Your task to perform on an android device: uninstall "Nova Launcher" Image 0: 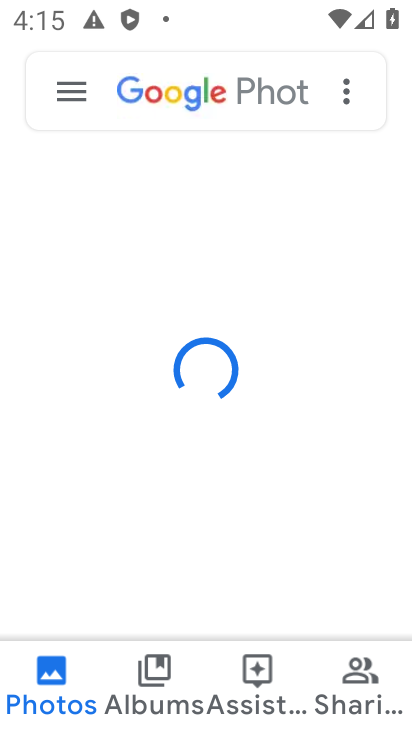
Step 0: press home button
Your task to perform on an android device: uninstall "Nova Launcher" Image 1: 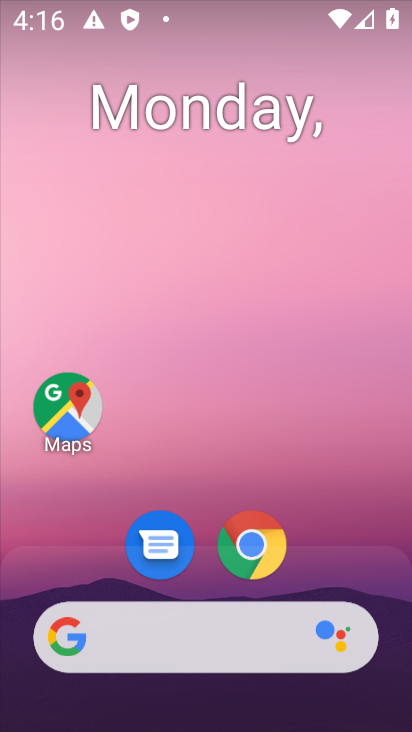
Step 1: drag from (393, 537) to (313, 1)
Your task to perform on an android device: uninstall "Nova Launcher" Image 2: 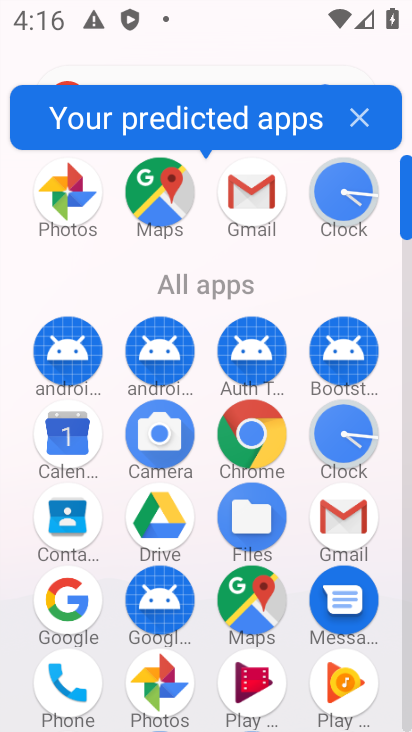
Step 2: drag from (110, 630) to (76, 358)
Your task to perform on an android device: uninstall "Nova Launcher" Image 3: 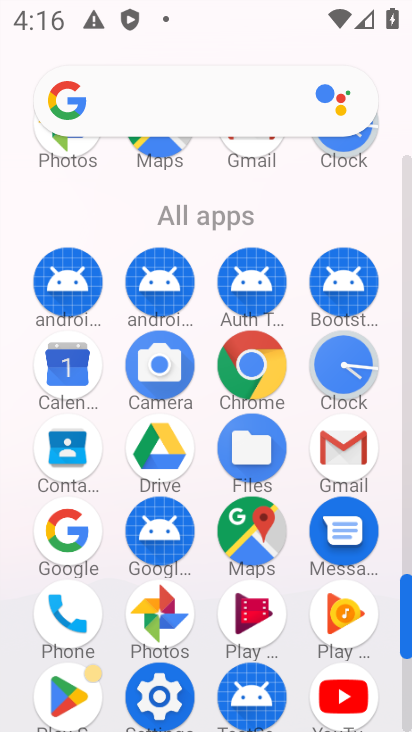
Step 3: click (61, 705)
Your task to perform on an android device: uninstall "Nova Launcher" Image 4: 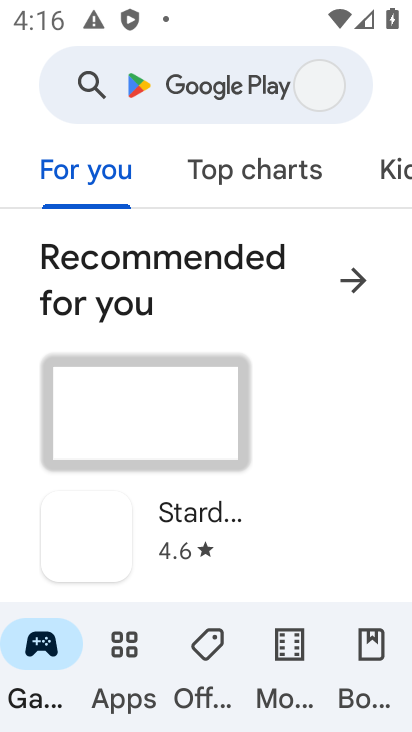
Step 4: click (276, 77)
Your task to perform on an android device: uninstall "Nova Launcher" Image 5: 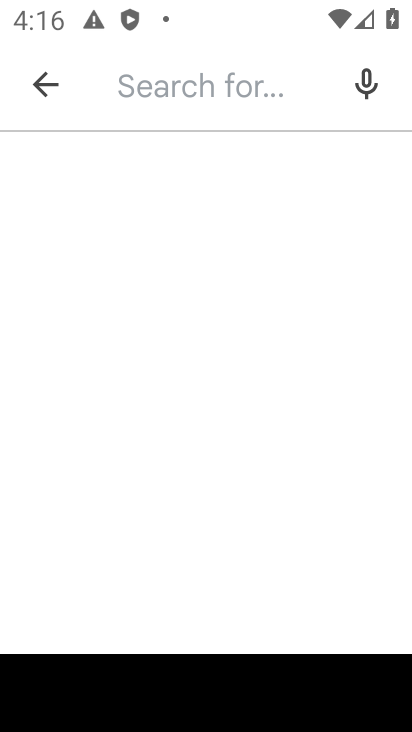
Step 5: type "nova launcher"
Your task to perform on an android device: uninstall "Nova Launcher" Image 6: 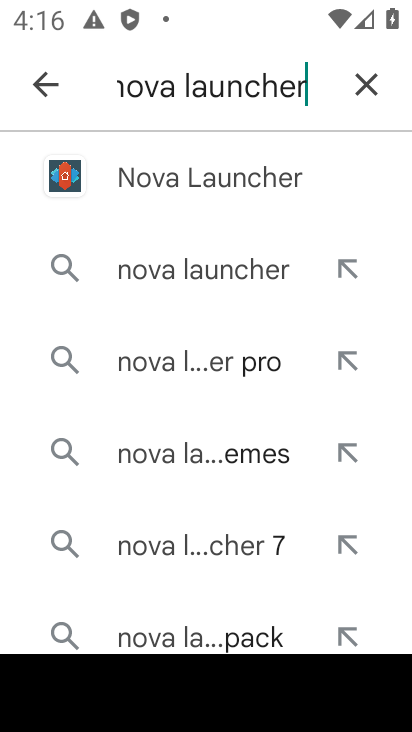
Step 6: click (161, 166)
Your task to perform on an android device: uninstall "Nova Launcher" Image 7: 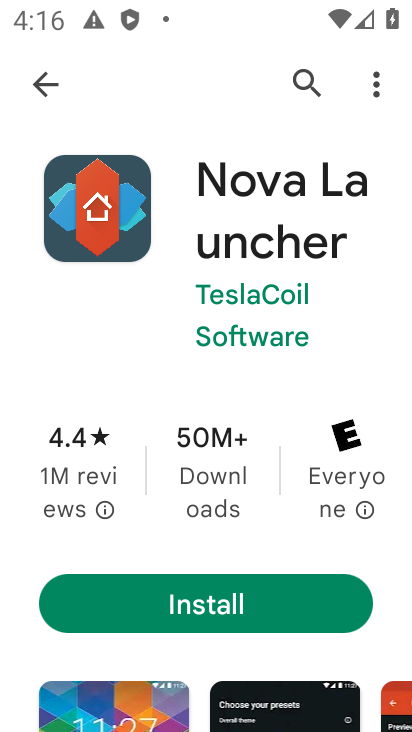
Step 7: task complete